Your task to perform on an android device: turn pop-ups off in chrome Image 0: 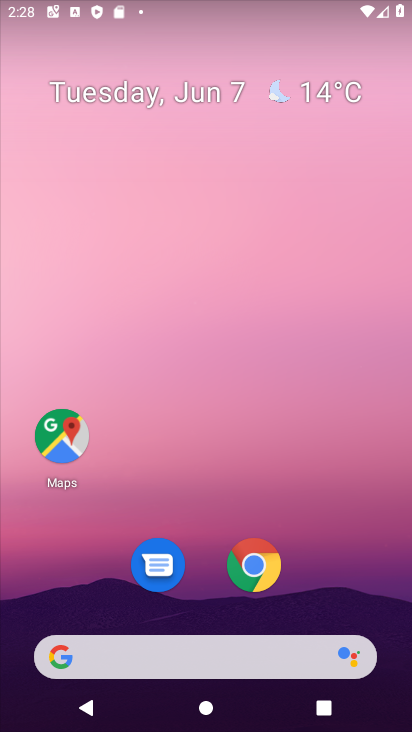
Step 0: drag from (250, 664) to (407, 621)
Your task to perform on an android device: turn pop-ups off in chrome Image 1: 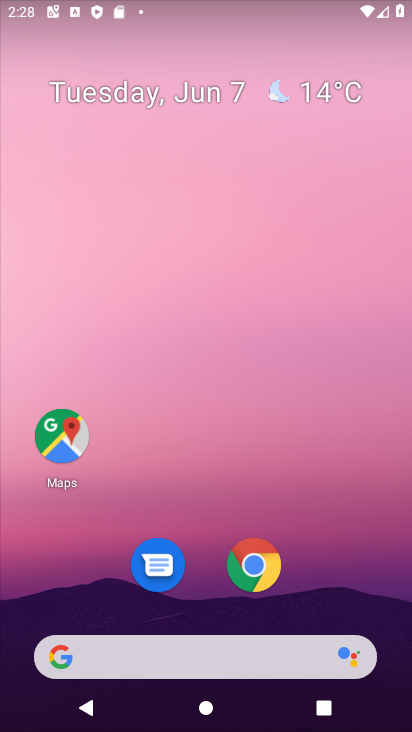
Step 1: drag from (299, 565) to (301, 4)
Your task to perform on an android device: turn pop-ups off in chrome Image 2: 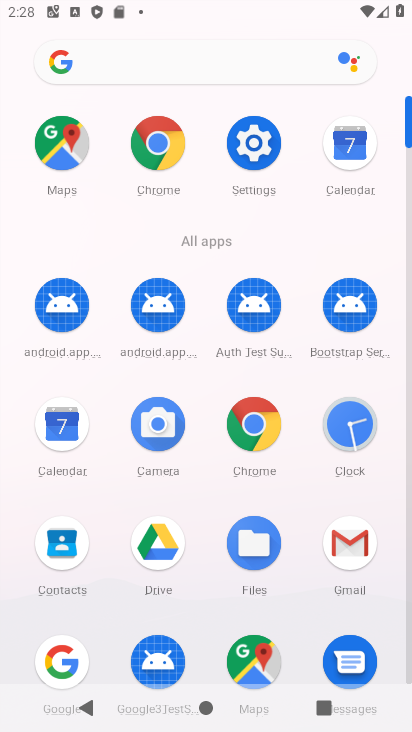
Step 2: click (261, 433)
Your task to perform on an android device: turn pop-ups off in chrome Image 3: 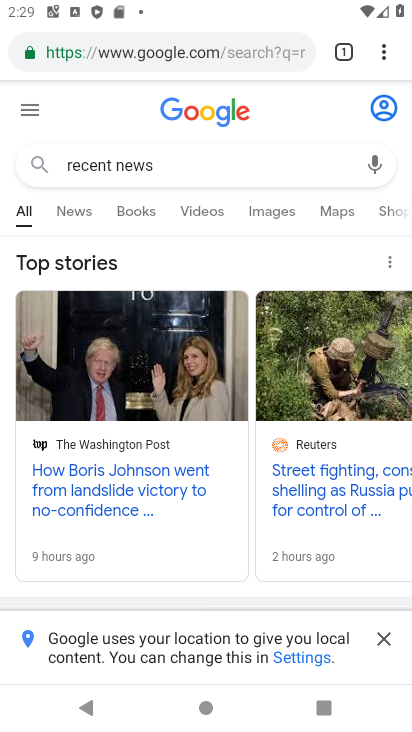
Step 3: click (382, 56)
Your task to perform on an android device: turn pop-ups off in chrome Image 4: 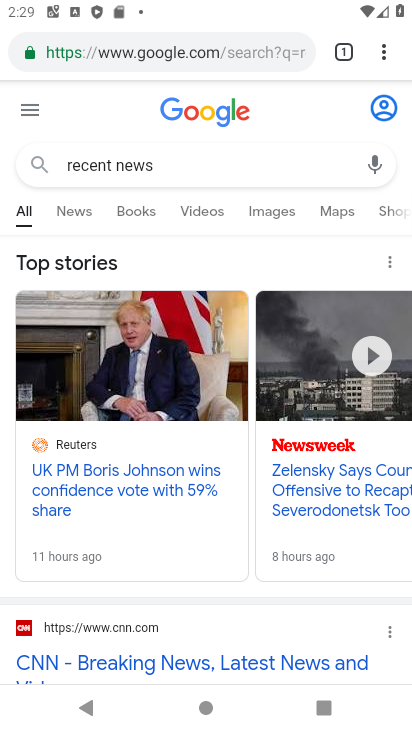
Step 4: drag from (388, 51) to (237, 585)
Your task to perform on an android device: turn pop-ups off in chrome Image 5: 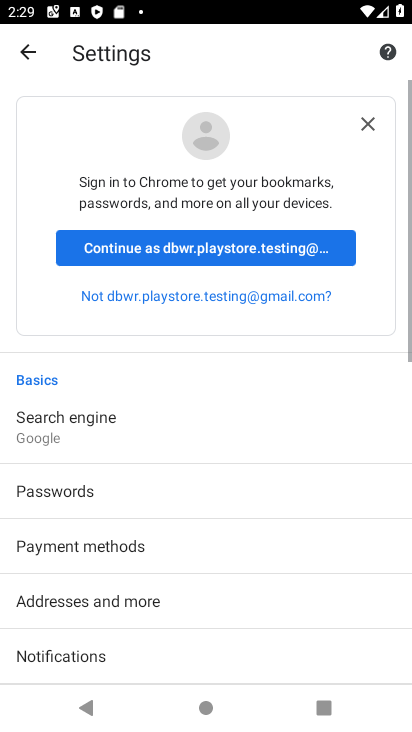
Step 5: drag from (250, 616) to (229, 87)
Your task to perform on an android device: turn pop-ups off in chrome Image 6: 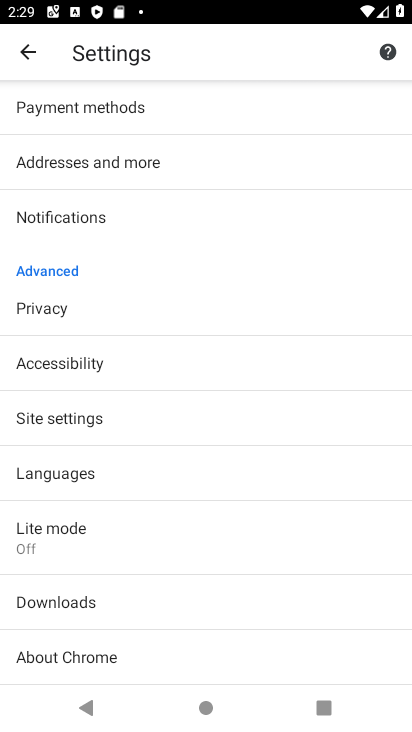
Step 6: click (107, 420)
Your task to perform on an android device: turn pop-ups off in chrome Image 7: 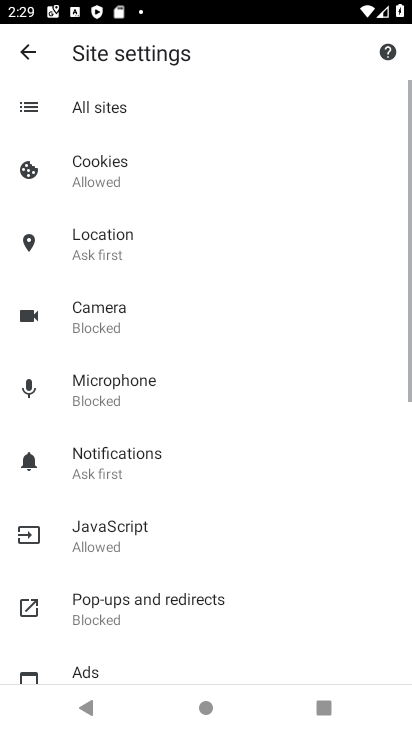
Step 7: drag from (241, 633) to (244, 426)
Your task to perform on an android device: turn pop-ups off in chrome Image 8: 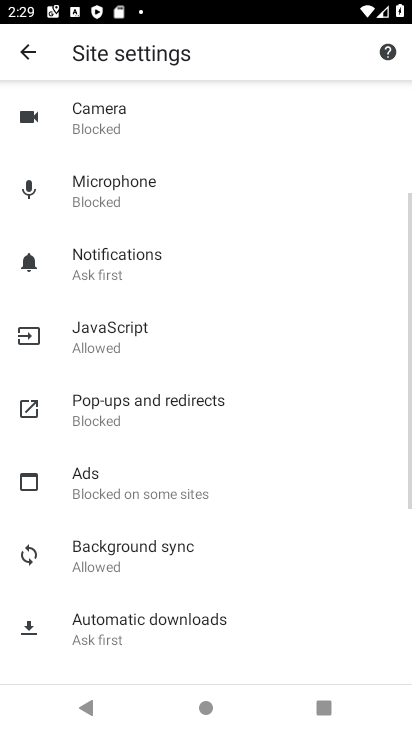
Step 8: click (200, 409)
Your task to perform on an android device: turn pop-ups off in chrome Image 9: 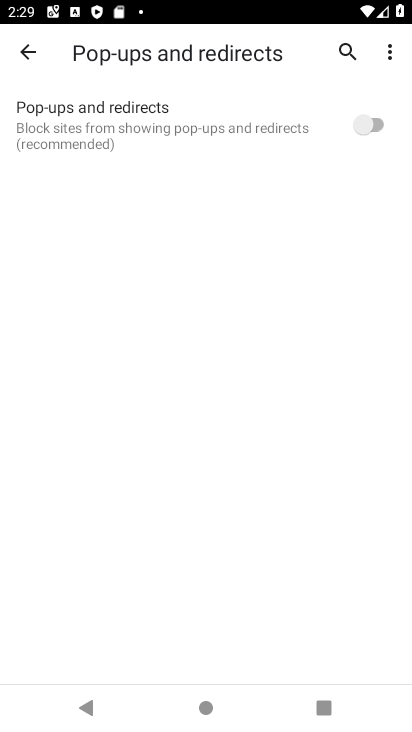
Step 9: task complete